Your task to perform on an android device: Go to Maps Image 0: 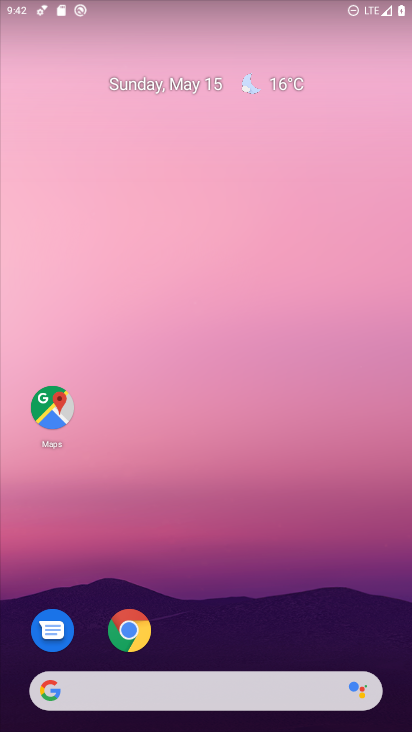
Step 0: drag from (202, 622) to (257, 160)
Your task to perform on an android device: Go to Maps Image 1: 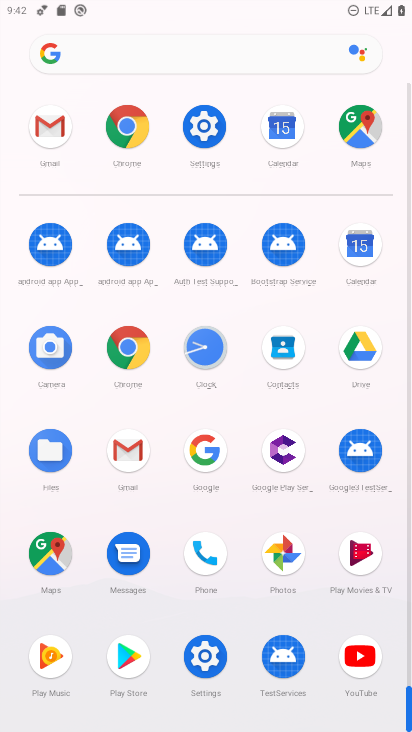
Step 1: click (44, 554)
Your task to perform on an android device: Go to Maps Image 2: 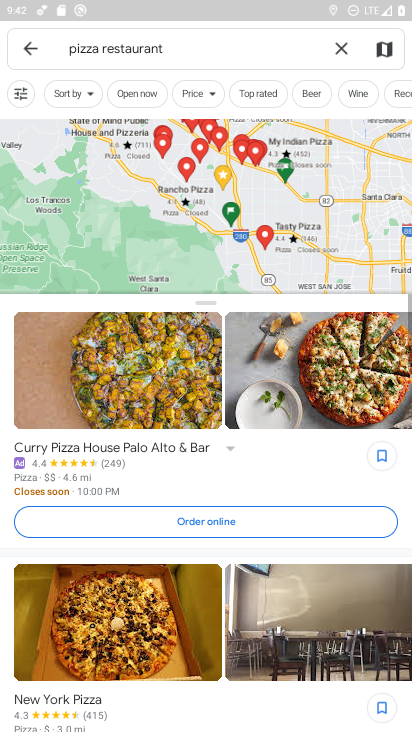
Step 2: click (339, 51)
Your task to perform on an android device: Go to Maps Image 3: 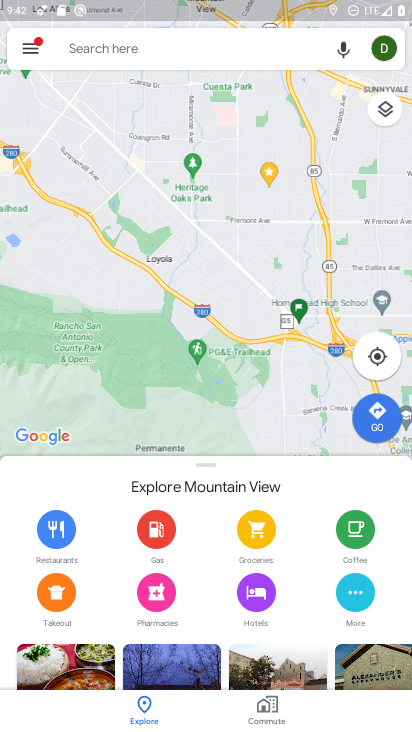
Step 3: task complete